Your task to perform on an android device: search for starred emails in the gmail app Image 0: 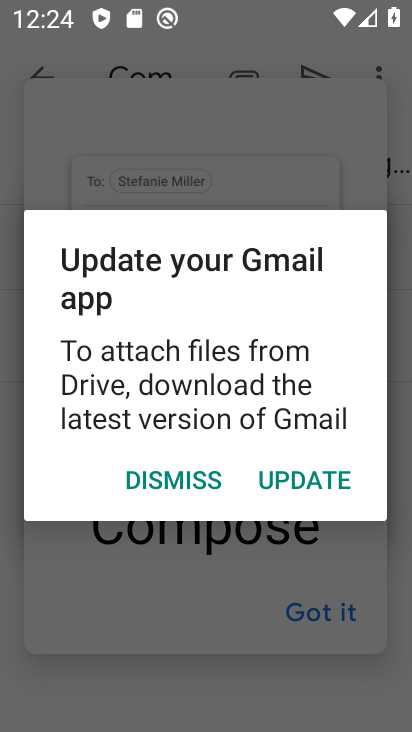
Step 0: press home button
Your task to perform on an android device: search for starred emails in the gmail app Image 1: 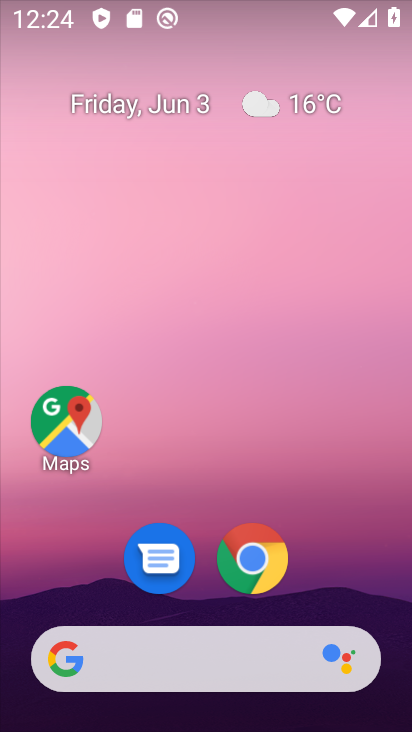
Step 1: drag from (364, 590) to (363, 198)
Your task to perform on an android device: search for starred emails in the gmail app Image 2: 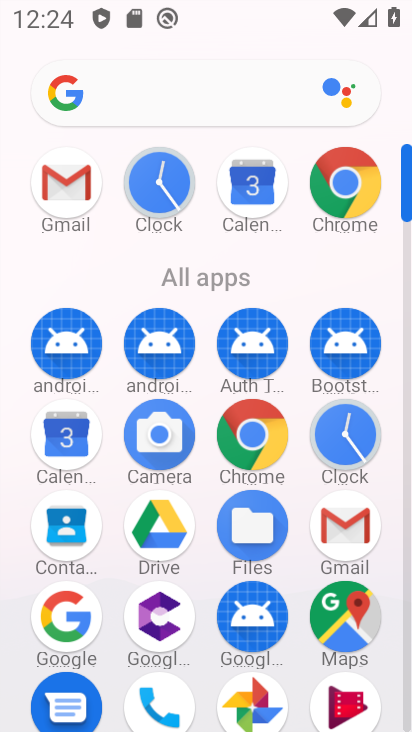
Step 2: click (351, 533)
Your task to perform on an android device: search for starred emails in the gmail app Image 3: 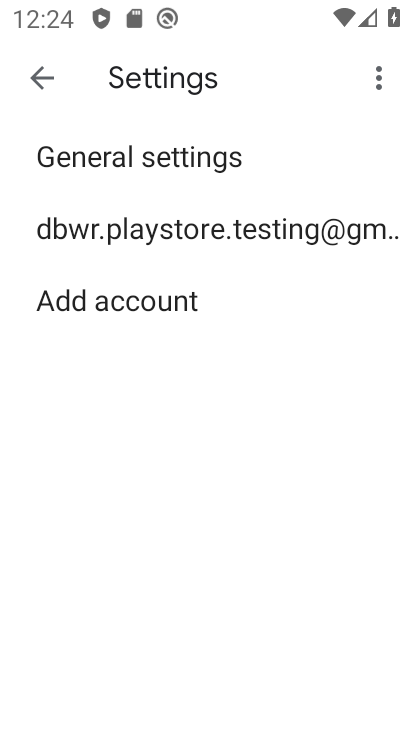
Step 3: press back button
Your task to perform on an android device: search for starred emails in the gmail app Image 4: 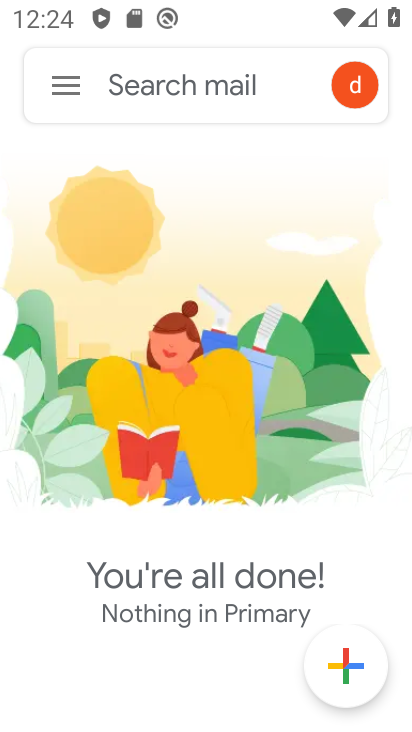
Step 4: click (72, 87)
Your task to perform on an android device: search for starred emails in the gmail app Image 5: 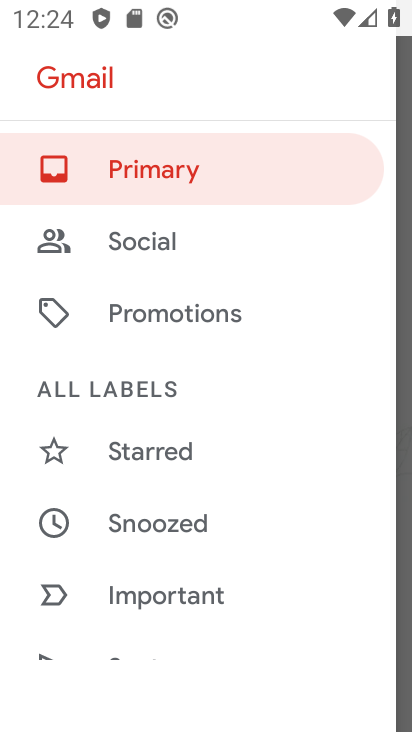
Step 5: drag from (342, 518) to (340, 385)
Your task to perform on an android device: search for starred emails in the gmail app Image 6: 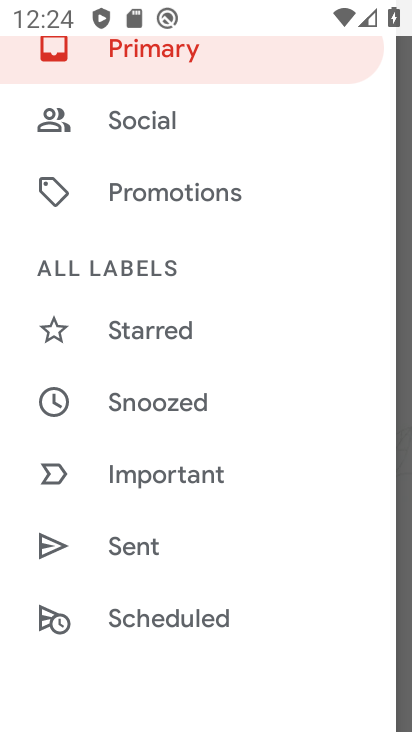
Step 6: drag from (320, 491) to (329, 369)
Your task to perform on an android device: search for starred emails in the gmail app Image 7: 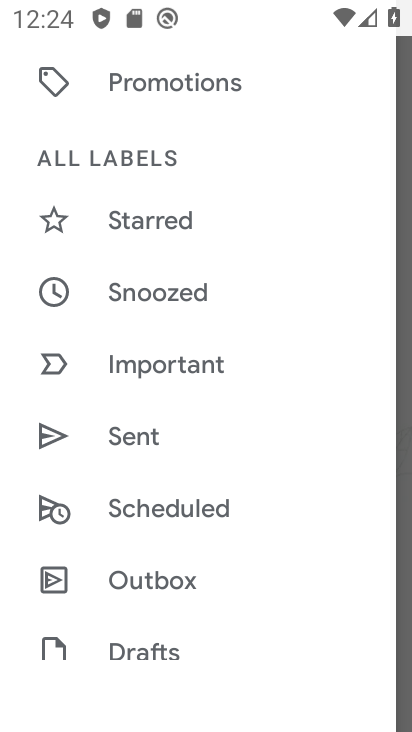
Step 7: drag from (316, 479) to (315, 364)
Your task to perform on an android device: search for starred emails in the gmail app Image 8: 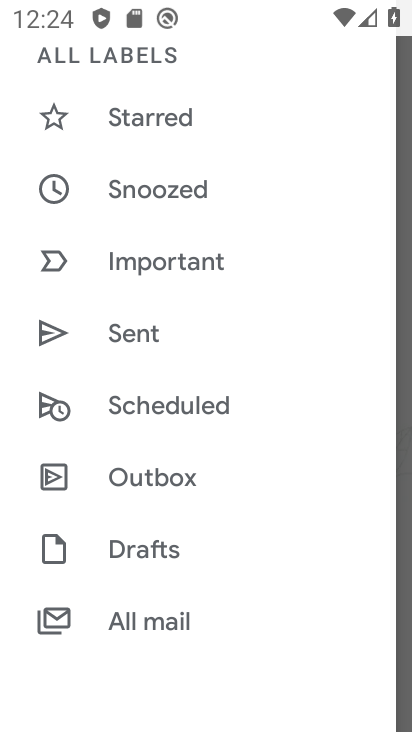
Step 8: drag from (319, 429) to (309, 305)
Your task to perform on an android device: search for starred emails in the gmail app Image 9: 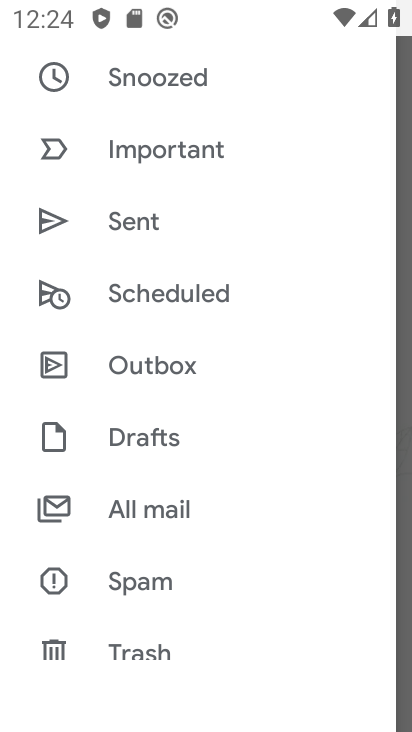
Step 9: drag from (295, 470) to (307, 329)
Your task to perform on an android device: search for starred emails in the gmail app Image 10: 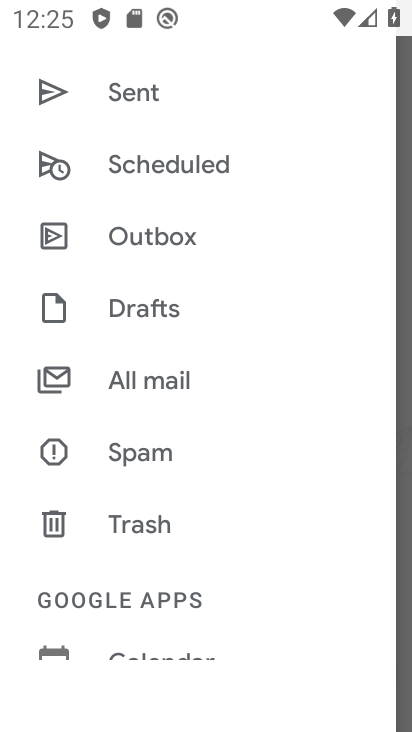
Step 10: drag from (306, 475) to (299, 355)
Your task to perform on an android device: search for starred emails in the gmail app Image 11: 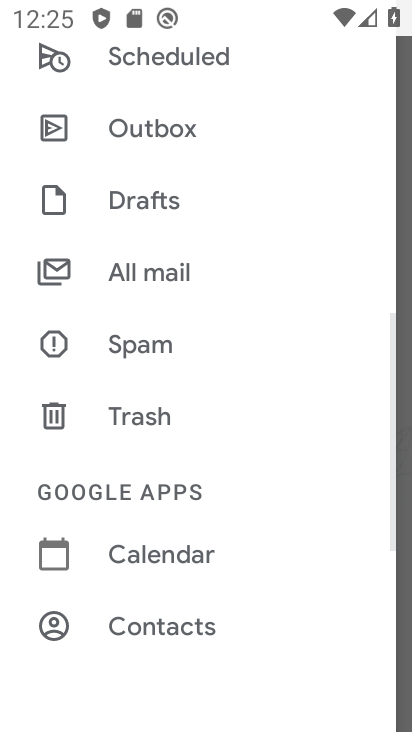
Step 11: drag from (299, 291) to (298, 406)
Your task to perform on an android device: search for starred emails in the gmail app Image 12: 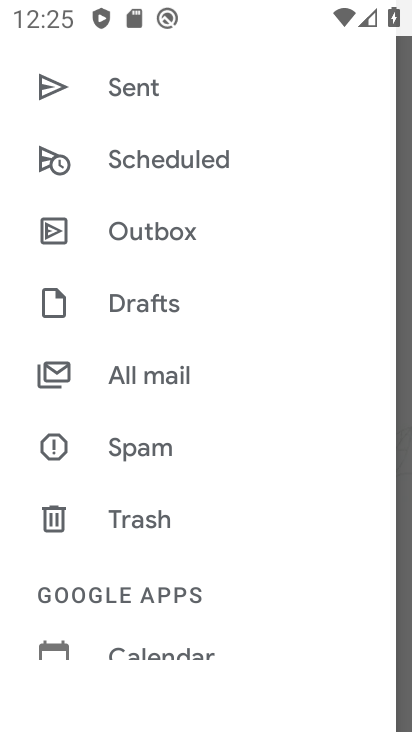
Step 12: drag from (306, 258) to (303, 381)
Your task to perform on an android device: search for starred emails in the gmail app Image 13: 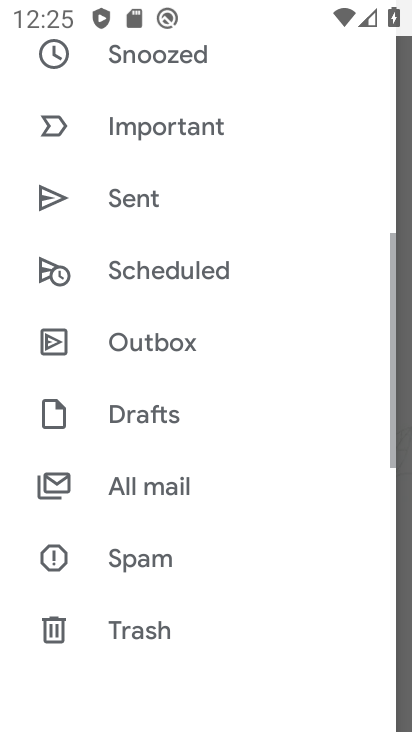
Step 13: drag from (293, 262) to (301, 452)
Your task to perform on an android device: search for starred emails in the gmail app Image 14: 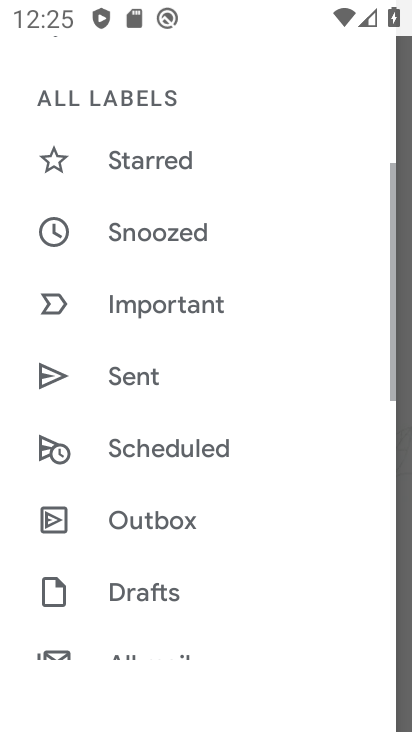
Step 14: drag from (289, 213) to (294, 406)
Your task to perform on an android device: search for starred emails in the gmail app Image 15: 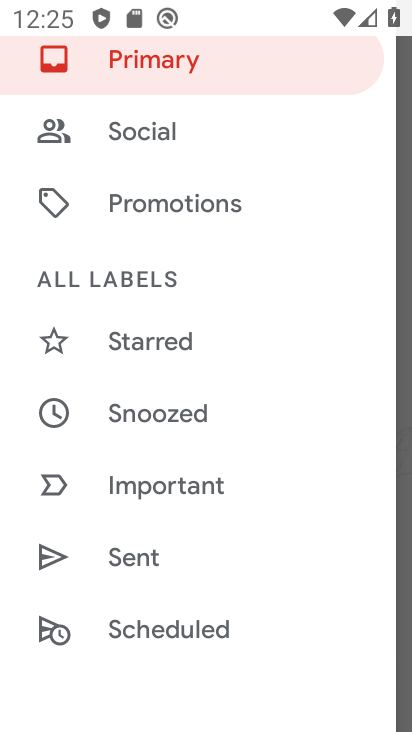
Step 15: click (186, 353)
Your task to perform on an android device: search for starred emails in the gmail app Image 16: 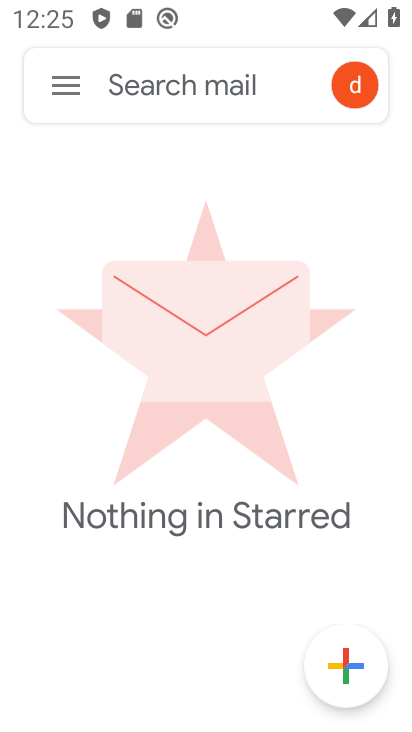
Step 16: task complete